Your task to perform on an android device: turn on translation in the chrome app Image 0: 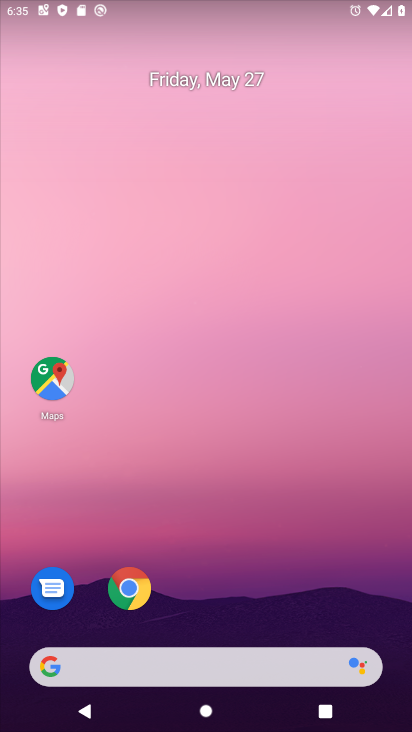
Step 0: drag from (213, 597) to (232, 12)
Your task to perform on an android device: turn on translation in the chrome app Image 1: 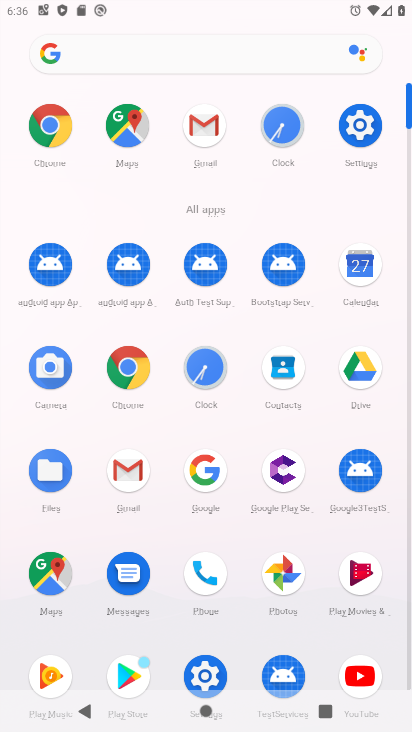
Step 1: click (126, 355)
Your task to perform on an android device: turn on translation in the chrome app Image 2: 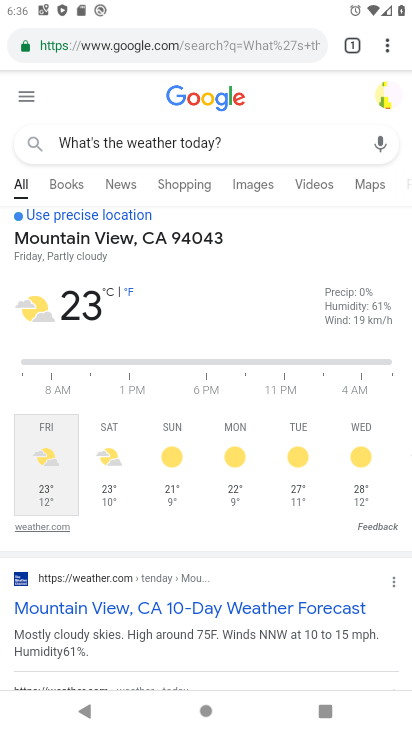
Step 2: drag from (380, 37) to (246, 495)
Your task to perform on an android device: turn on translation in the chrome app Image 3: 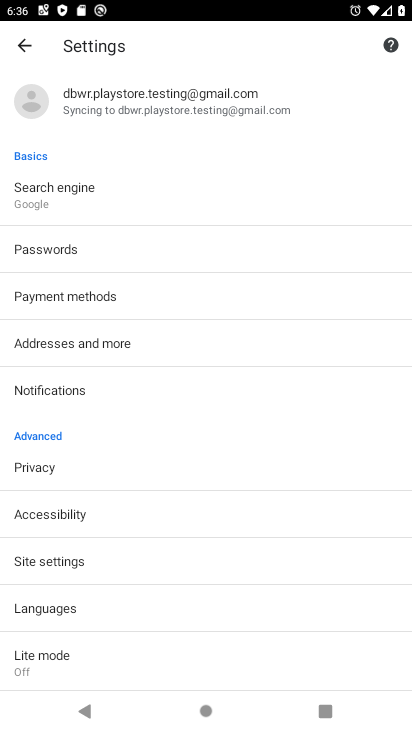
Step 3: click (76, 598)
Your task to perform on an android device: turn on translation in the chrome app Image 4: 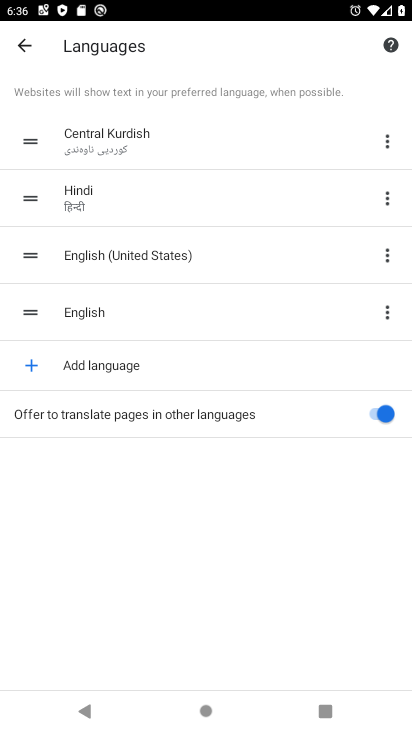
Step 4: click (223, 404)
Your task to perform on an android device: turn on translation in the chrome app Image 5: 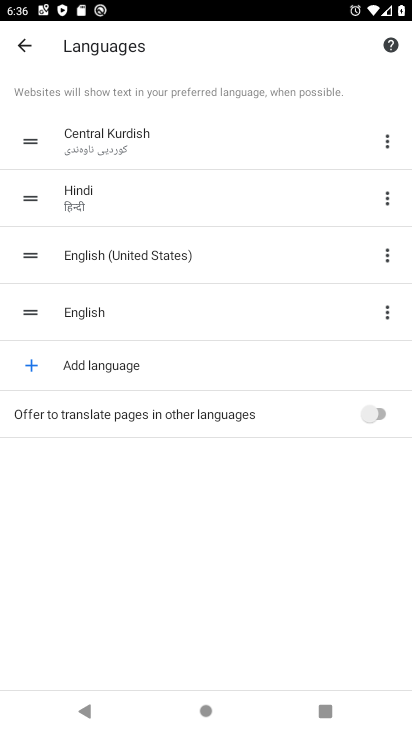
Step 5: click (314, 423)
Your task to perform on an android device: turn on translation in the chrome app Image 6: 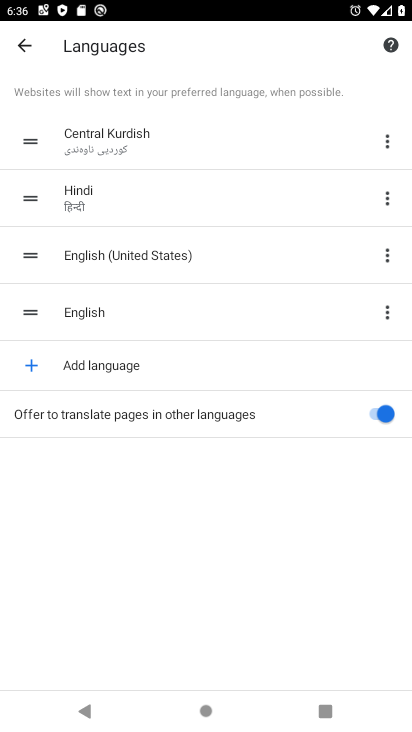
Step 6: task complete